Your task to perform on an android device: change the clock display to show seconds Image 0: 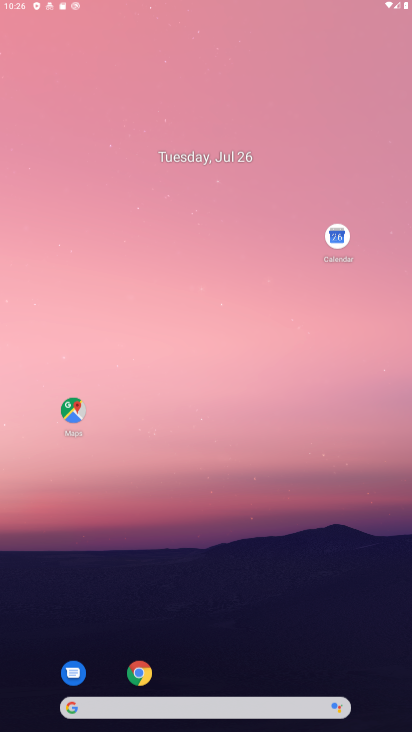
Step 0: click (16, 31)
Your task to perform on an android device: change the clock display to show seconds Image 1: 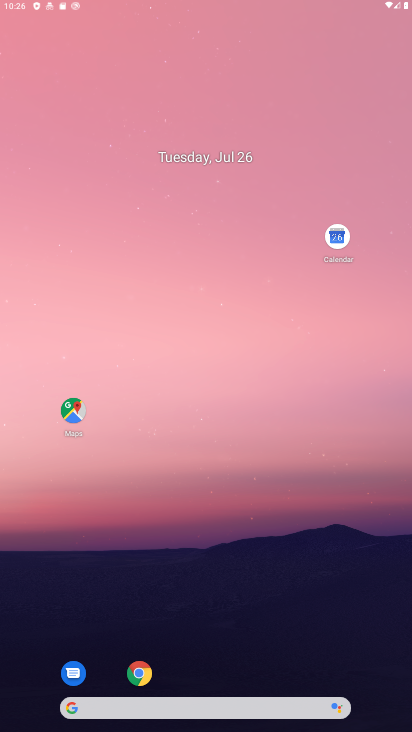
Step 1: click (186, 34)
Your task to perform on an android device: change the clock display to show seconds Image 2: 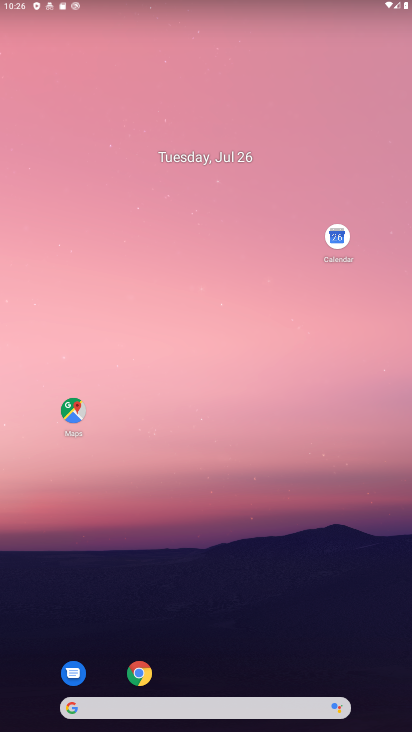
Step 2: click (185, 15)
Your task to perform on an android device: change the clock display to show seconds Image 3: 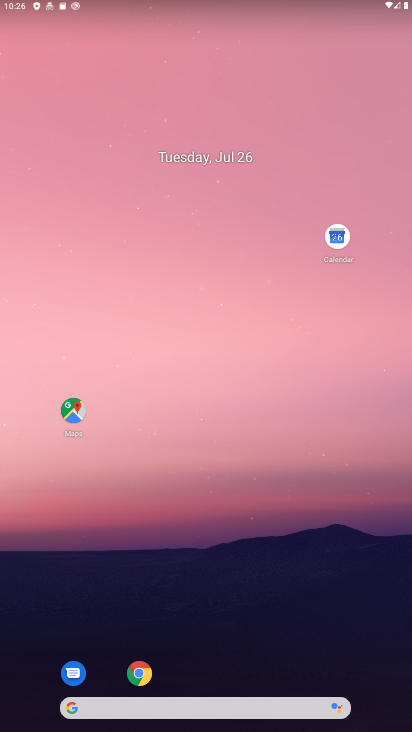
Step 3: drag from (226, 326) to (186, 20)
Your task to perform on an android device: change the clock display to show seconds Image 4: 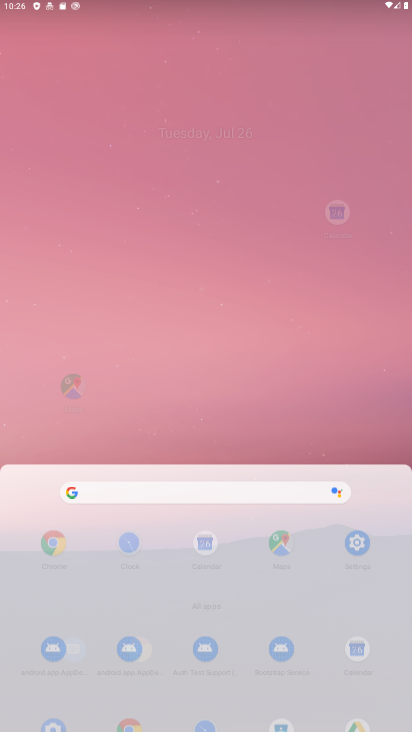
Step 4: drag from (227, 438) to (161, 9)
Your task to perform on an android device: change the clock display to show seconds Image 5: 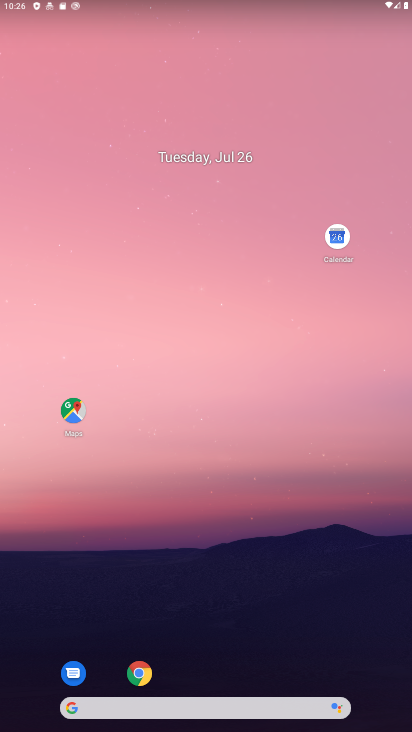
Step 5: click (65, 17)
Your task to perform on an android device: change the clock display to show seconds Image 6: 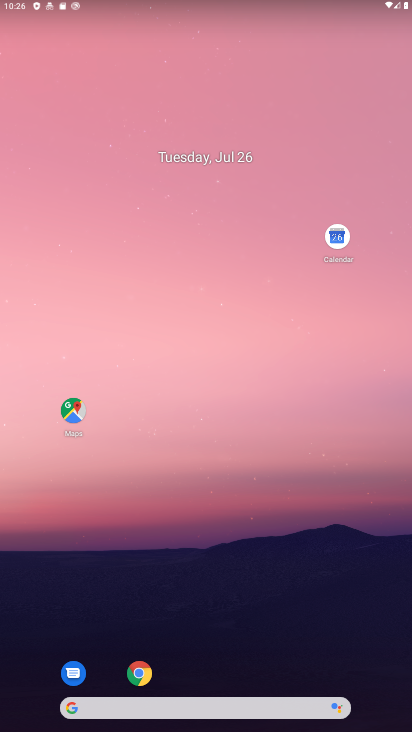
Step 6: click (154, 68)
Your task to perform on an android device: change the clock display to show seconds Image 7: 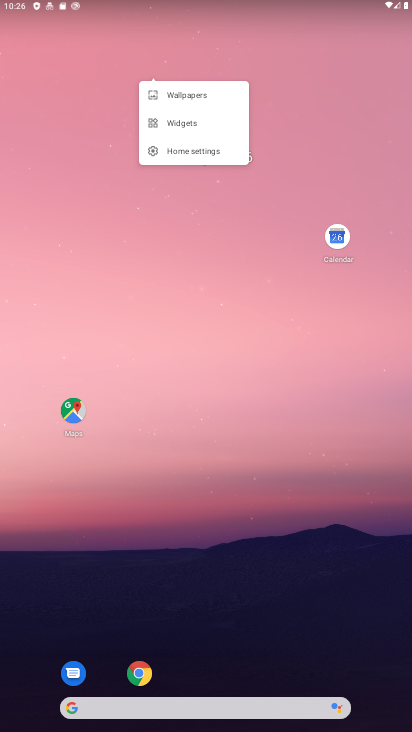
Step 7: click (166, 30)
Your task to perform on an android device: change the clock display to show seconds Image 8: 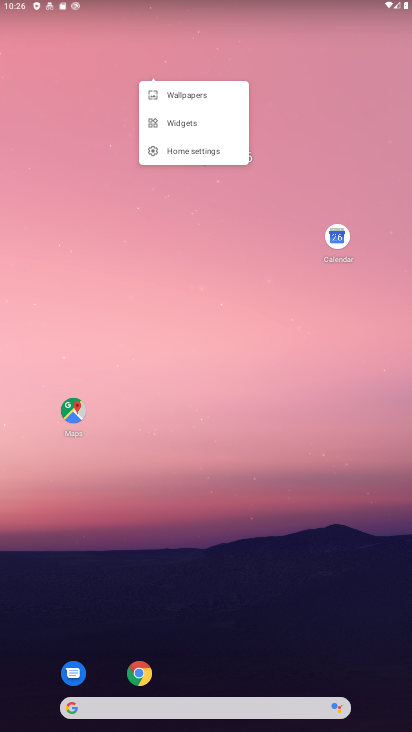
Step 8: drag from (185, 476) to (24, 153)
Your task to perform on an android device: change the clock display to show seconds Image 9: 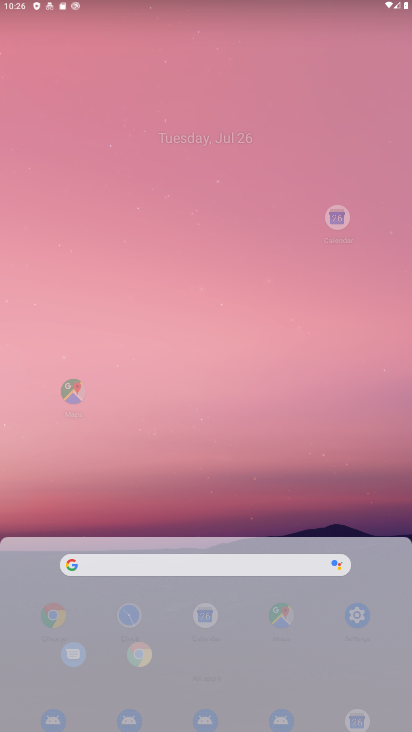
Step 9: click (87, 330)
Your task to perform on an android device: change the clock display to show seconds Image 10: 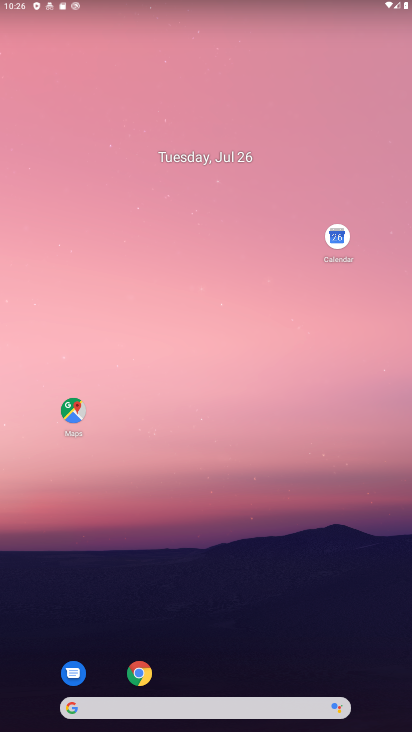
Step 10: click (141, 23)
Your task to perform on an android device: change the clock display to show seconds Image 11: 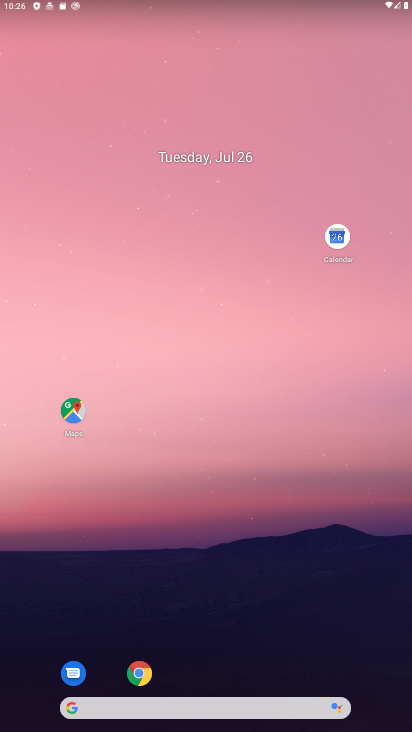
Step 11: click (225, 34)
Your task to perform on an android device: change the clock display to show seconds Image 12: 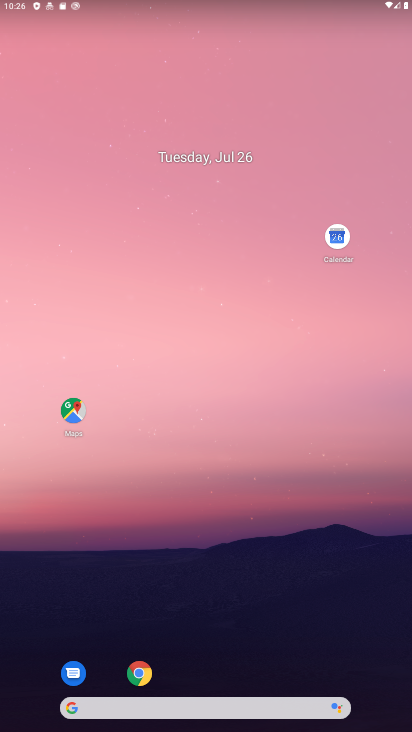
Step 12: drag from (174, 29) to (106, 69)
Your task to perform on an android device: change the clock display to show seconds Image 13: 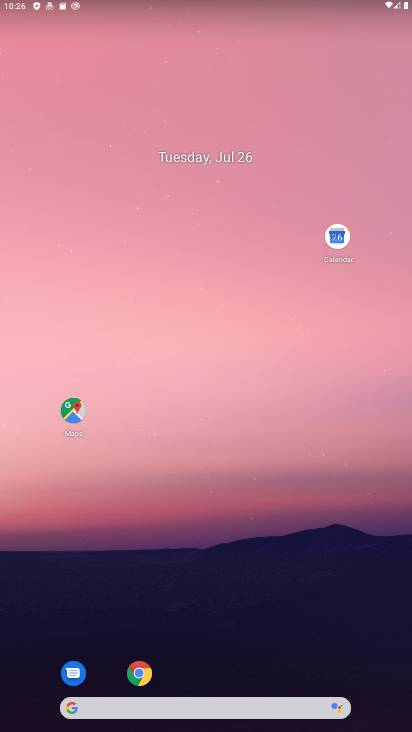
Step 13: click (47, 87)
Your task to perform on an android device: change the clock display to show seconds Image 14: 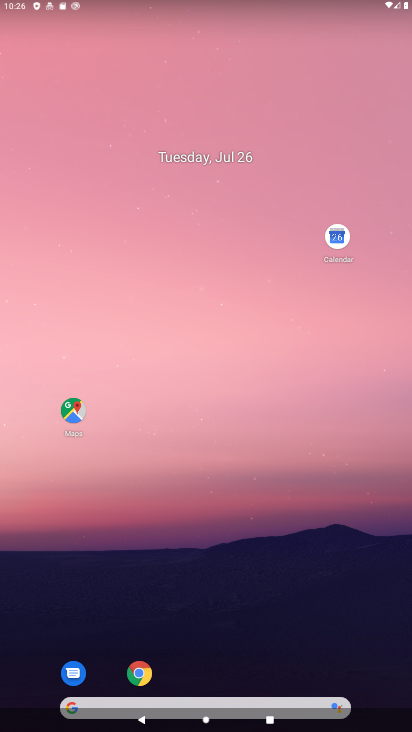
Step 14: click (226, 86)
Your task to perform on an android device: change the clock display to show seconds Image 15: 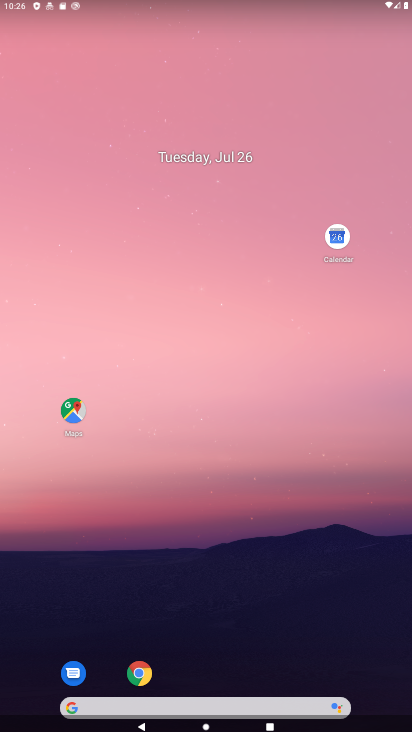
Step 15: click (211, 19)
Your task to perform on an android device: change the clock display to show seconds Image 16: 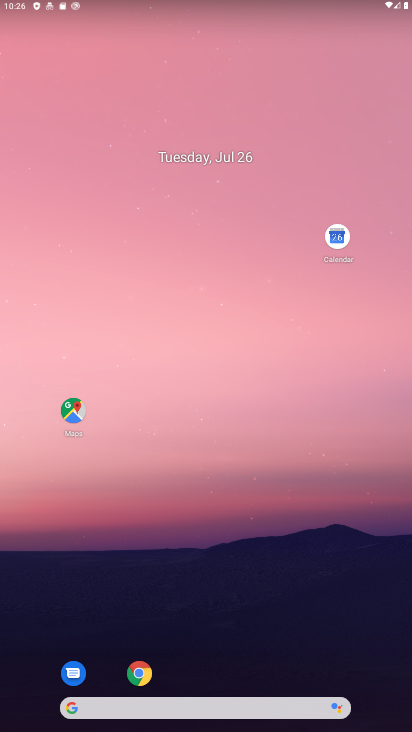
Step 16: drag from (244, 348) to (132, 212)
Your task to perform on an android device: change the clock display to show seconds Image 17: 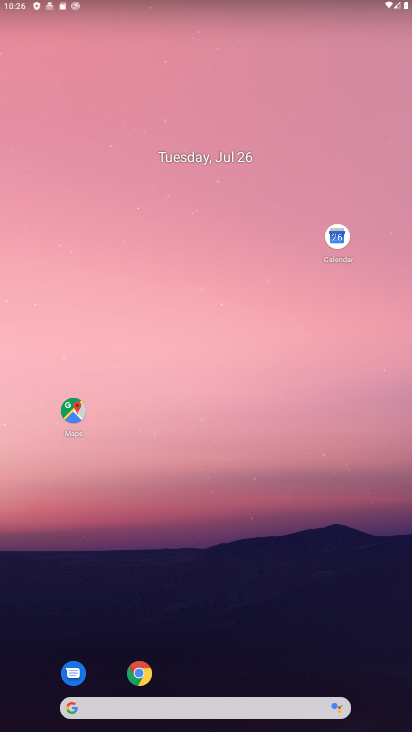
Step 17: click (44, 72)
Your task to perform on an android device: change the clock display to show seconds Image 18: 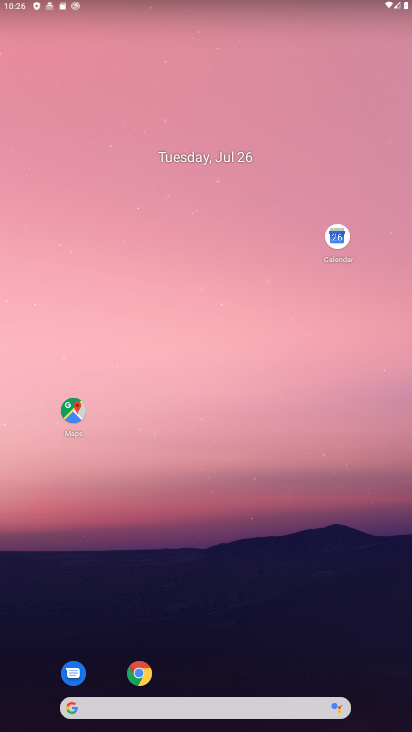
Step 18: drag from (143, 407) to (136, 6)
Your task to perform on an android device: change the clock display to show seconds Image 19: 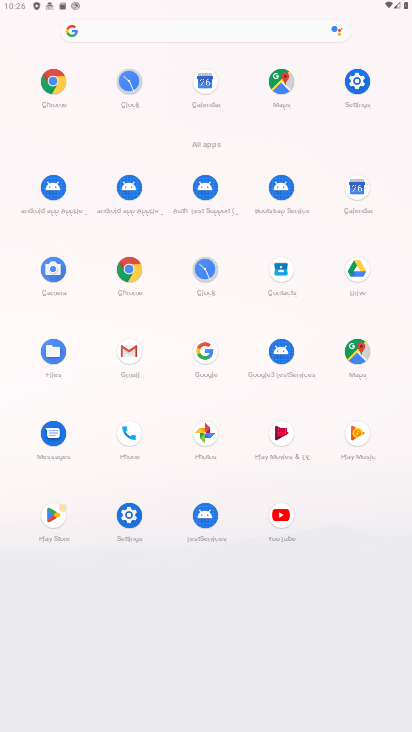
Step 19: drag from (188, 362) to (79, 19)
Your task to perform on an android device: change the clock display to show seconds Image 20: 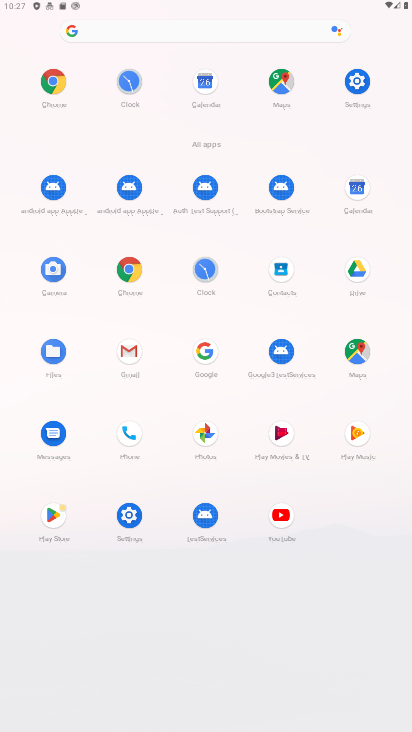
Step 20: click (208, 272)
Your task to perform on an android device: change the clock display to show seconds Image 21: 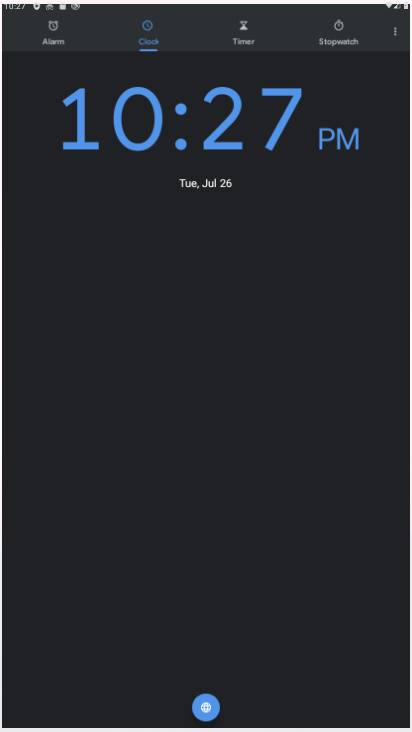
Step 21: click (211, 273)
Your task to perform on an android device: change the clock display to show seconds Image 22: 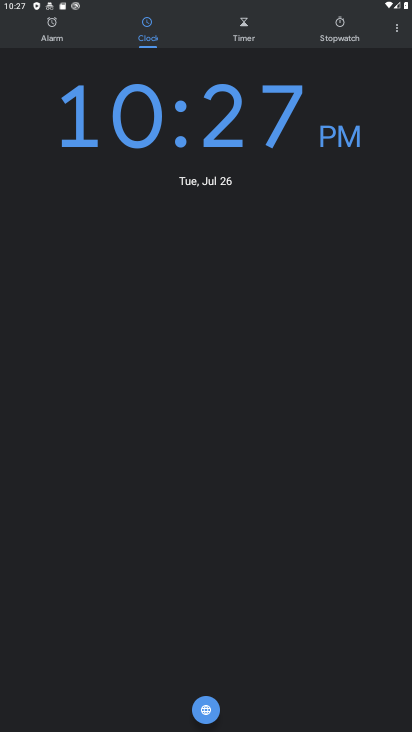
Step 22: click (211, 276)
Your task to perform on an android device: change the clock display to show seconds Image 23: 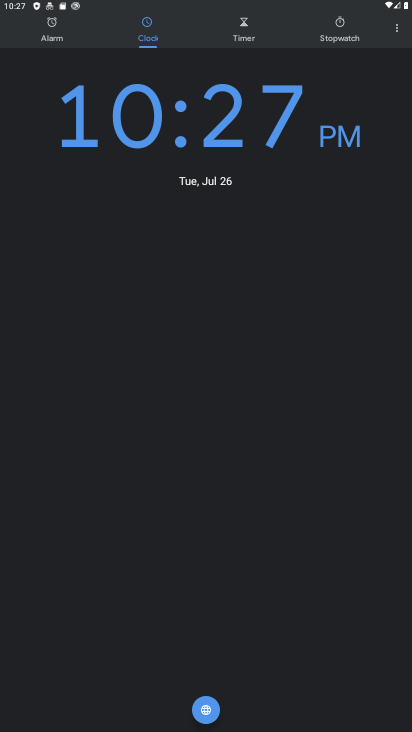
Step 23: click (211, 277)
Your task to perform on an android device: change the clock display to show seconds Image 24: 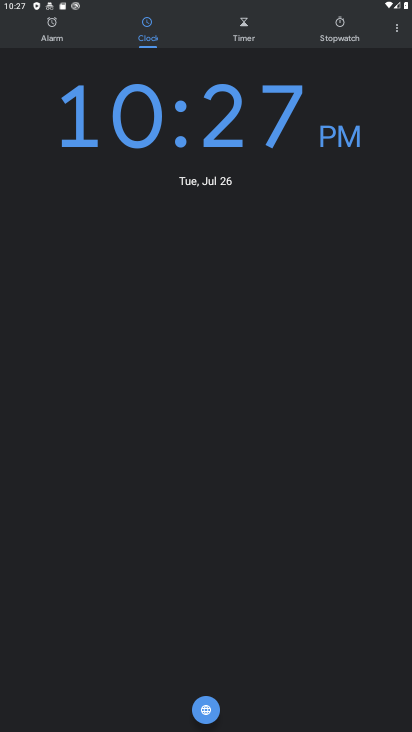
Step 24: click (395, 21)
Your task to perform on an android device: change the clock display to show seconds Image 25: 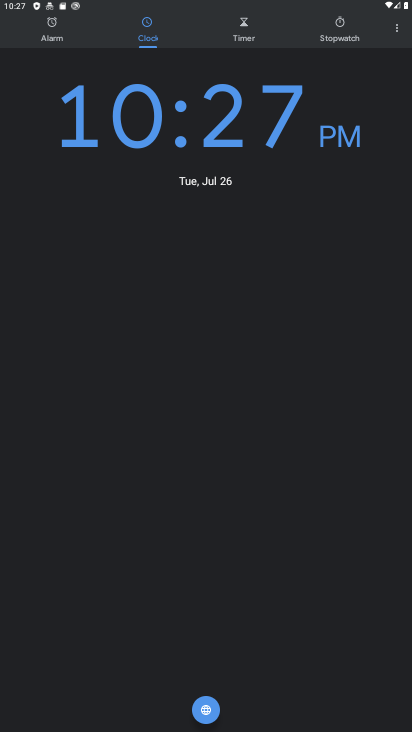
Step 25: click (397, 22)
Your task to perform on an android device: change the clock display to show seconds Image 26: 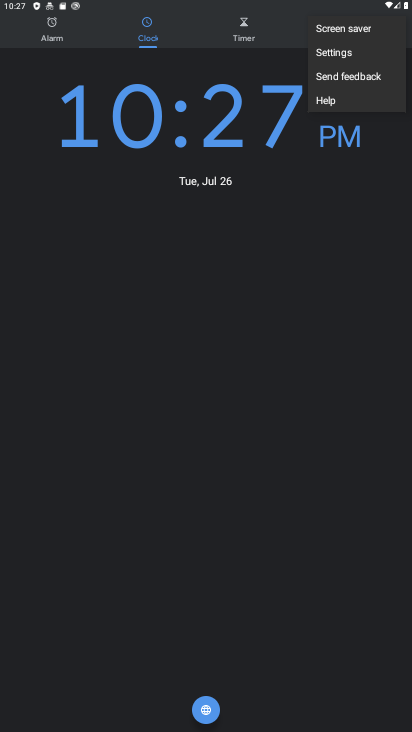
Step 26: click (318, 51)
Your task to perform on an android device: change the clock display to show seconds Image 27: 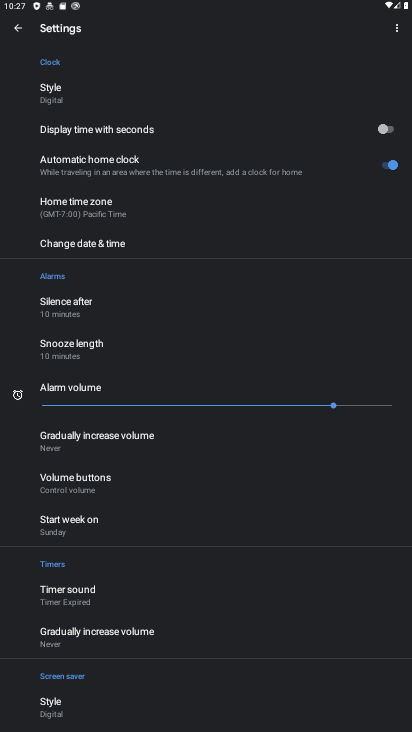
Step 27: click (393, 128)
Your task to perform on an android device: change the clock display to show seconds Image 28: 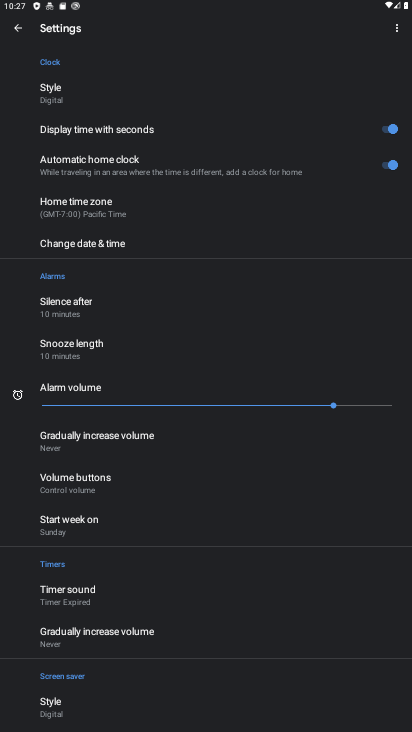
Step 28: task complete